Your task to perform on an android device: Go to CNN.com Image 0: 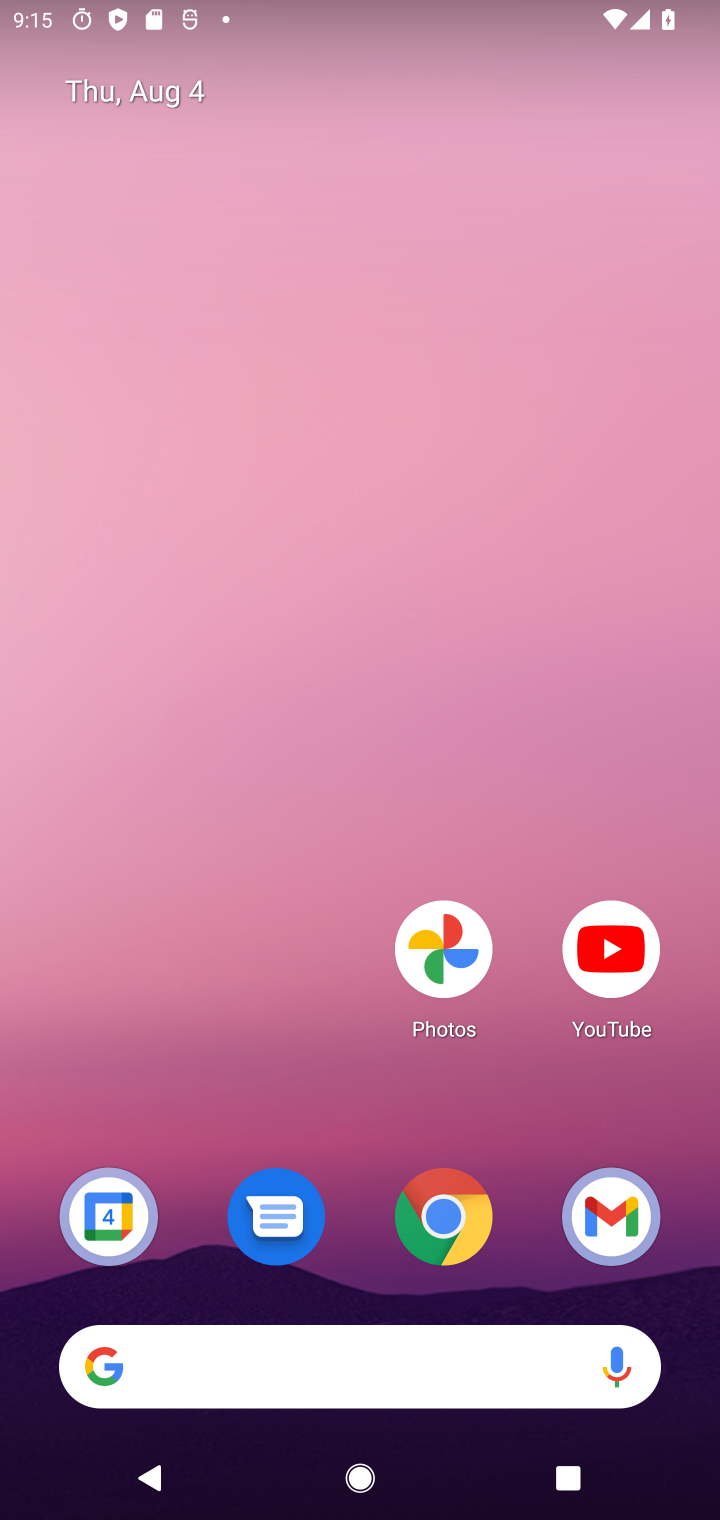
Step 0: drag from (349, 839) to (342, 280)
Your task to perform on an android device: Go to CNN.com Image 1: 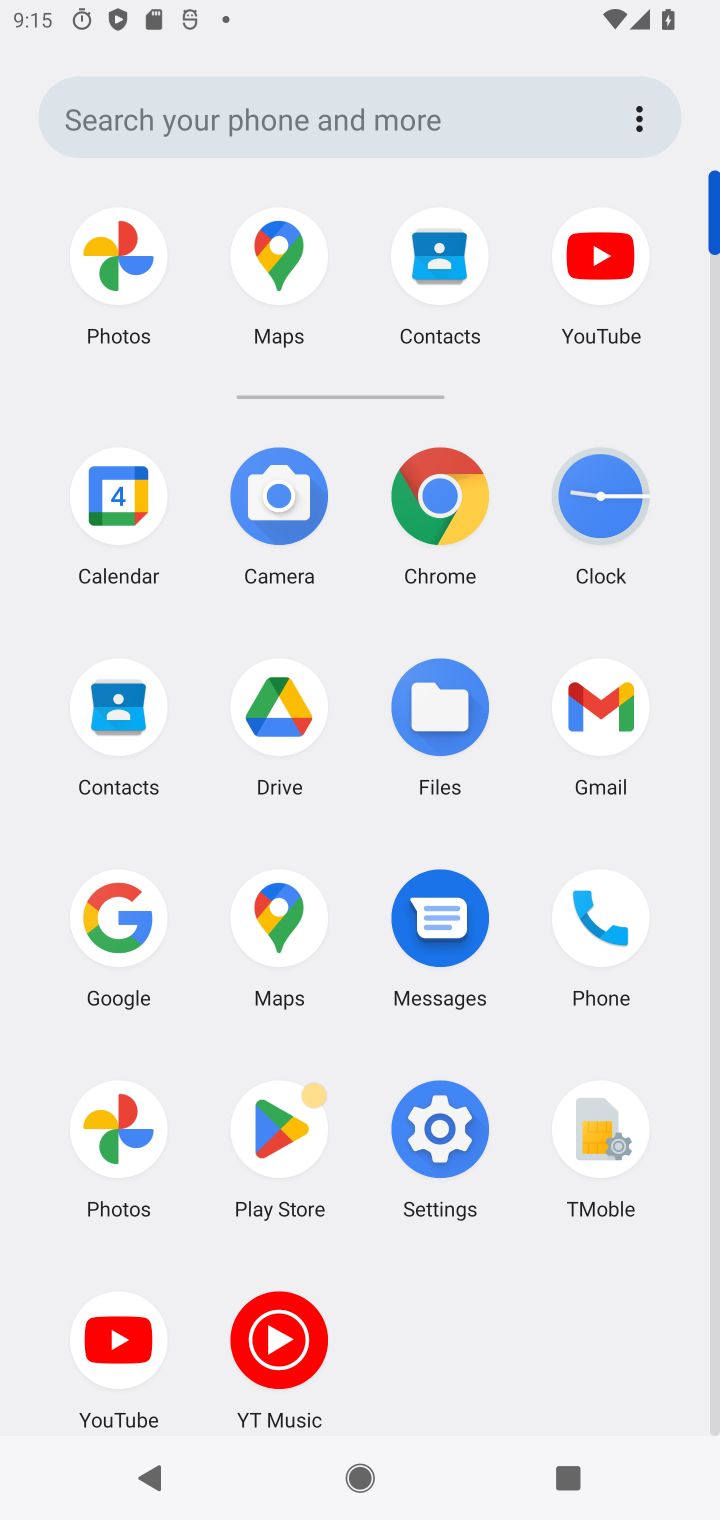
Step 1: click (432, 491)
Your task to perform on an android device: Go to CNN.com Image 2: 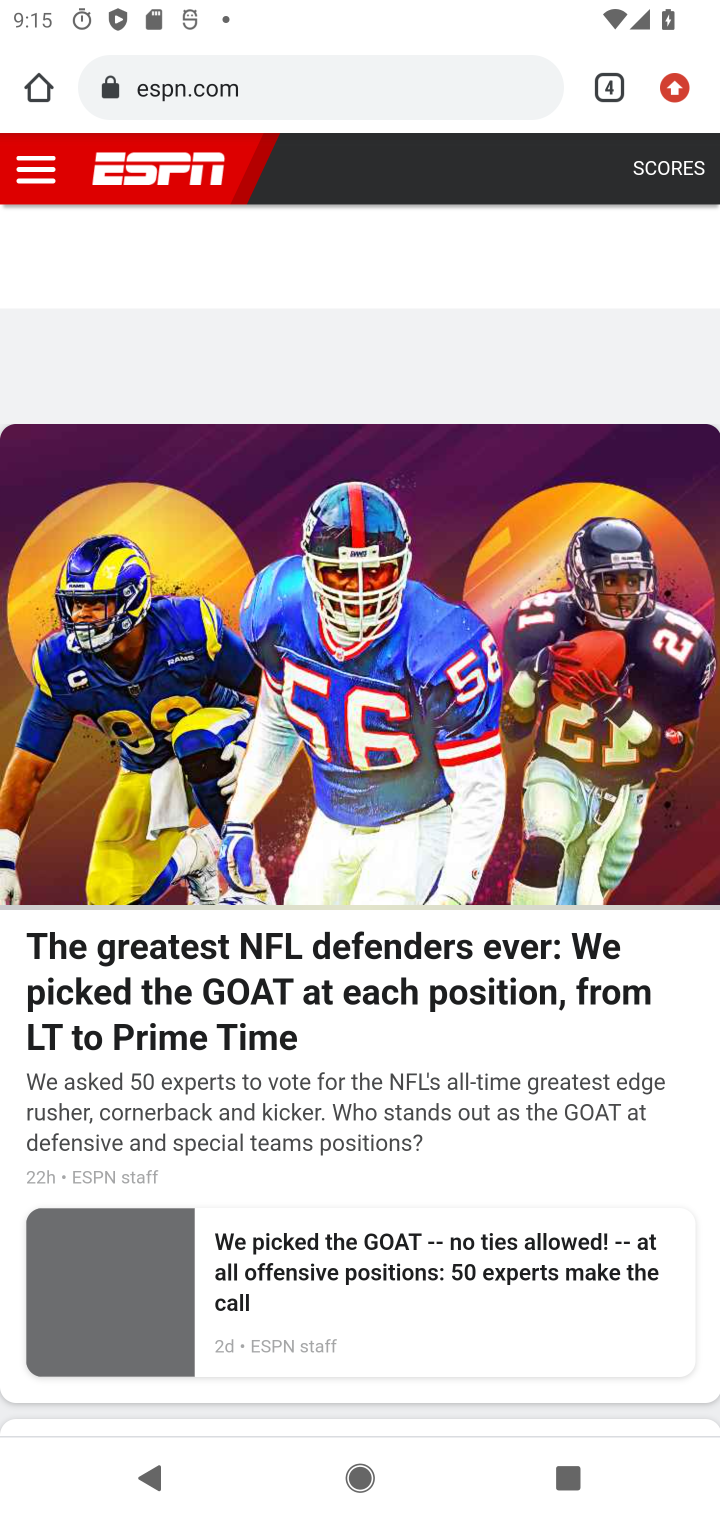
Step 2: click (673, 92)
Your task to perform on an android device: Go to CNN.com Image 3: 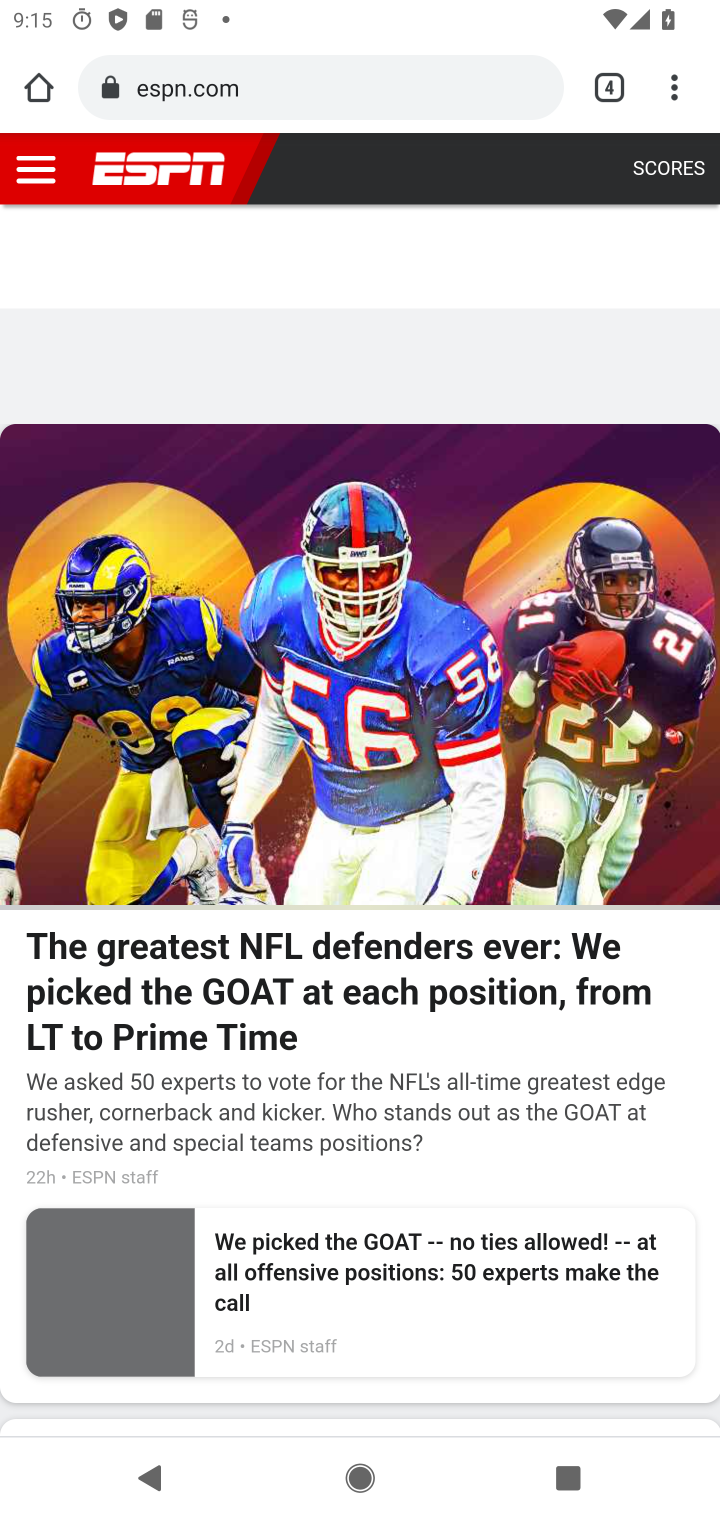
Step 3: drag from (671, 90) to (497, 257)
Your task to perform on an android device: Go to CNN.com Image 4: 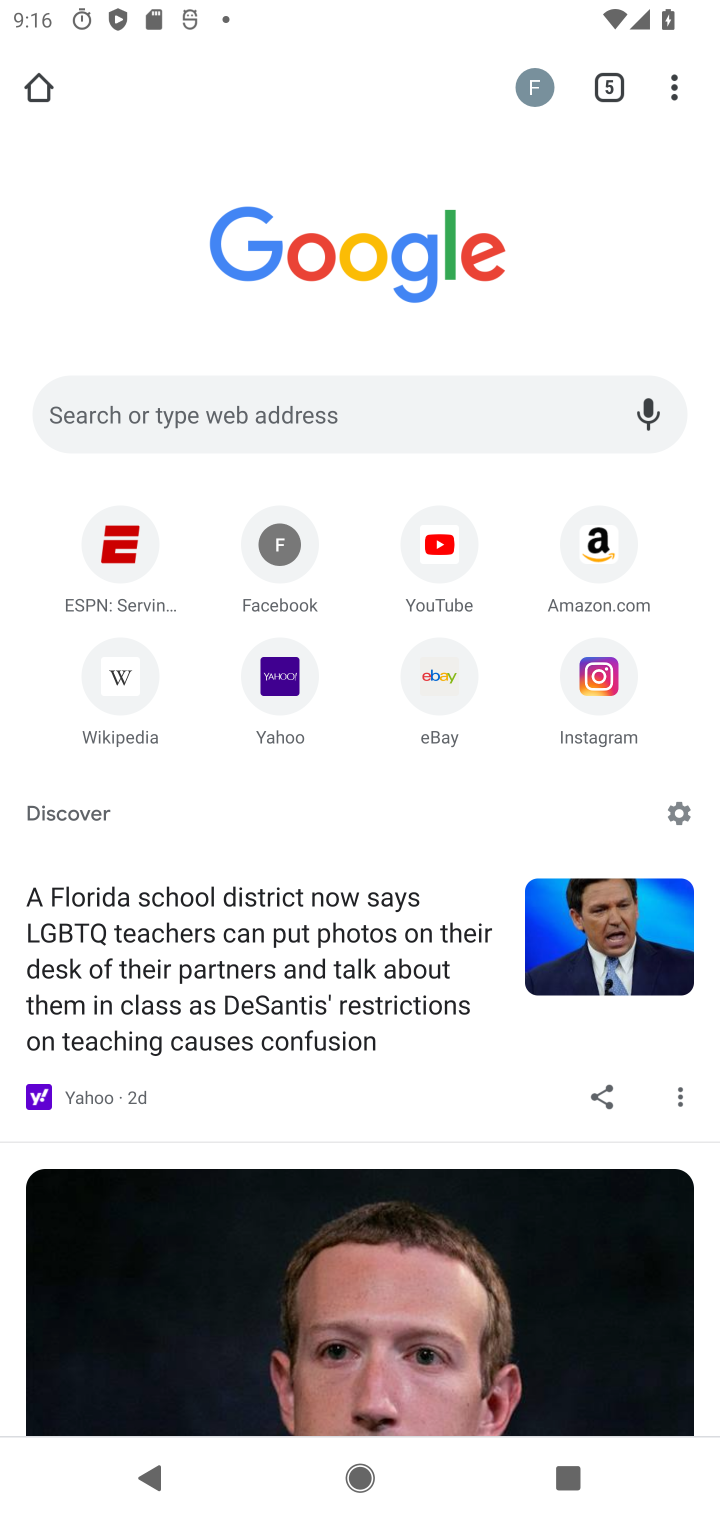
Step 4: click (448, 432)
Your task to perform on an android device: Go to CNN.com Image 5: 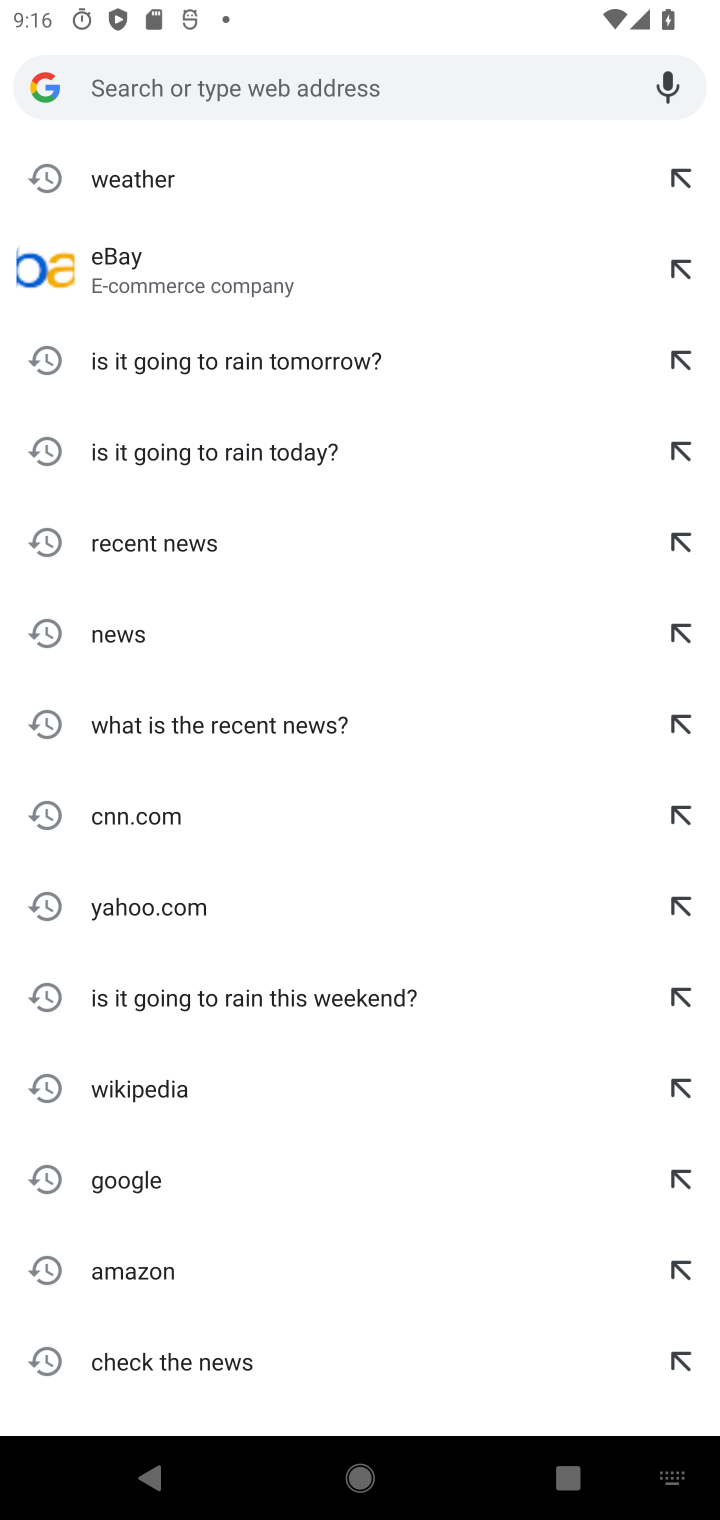
Step 5: type "CNN.com"
Your task to perform on an android device: Go to CNN.com Image 6: 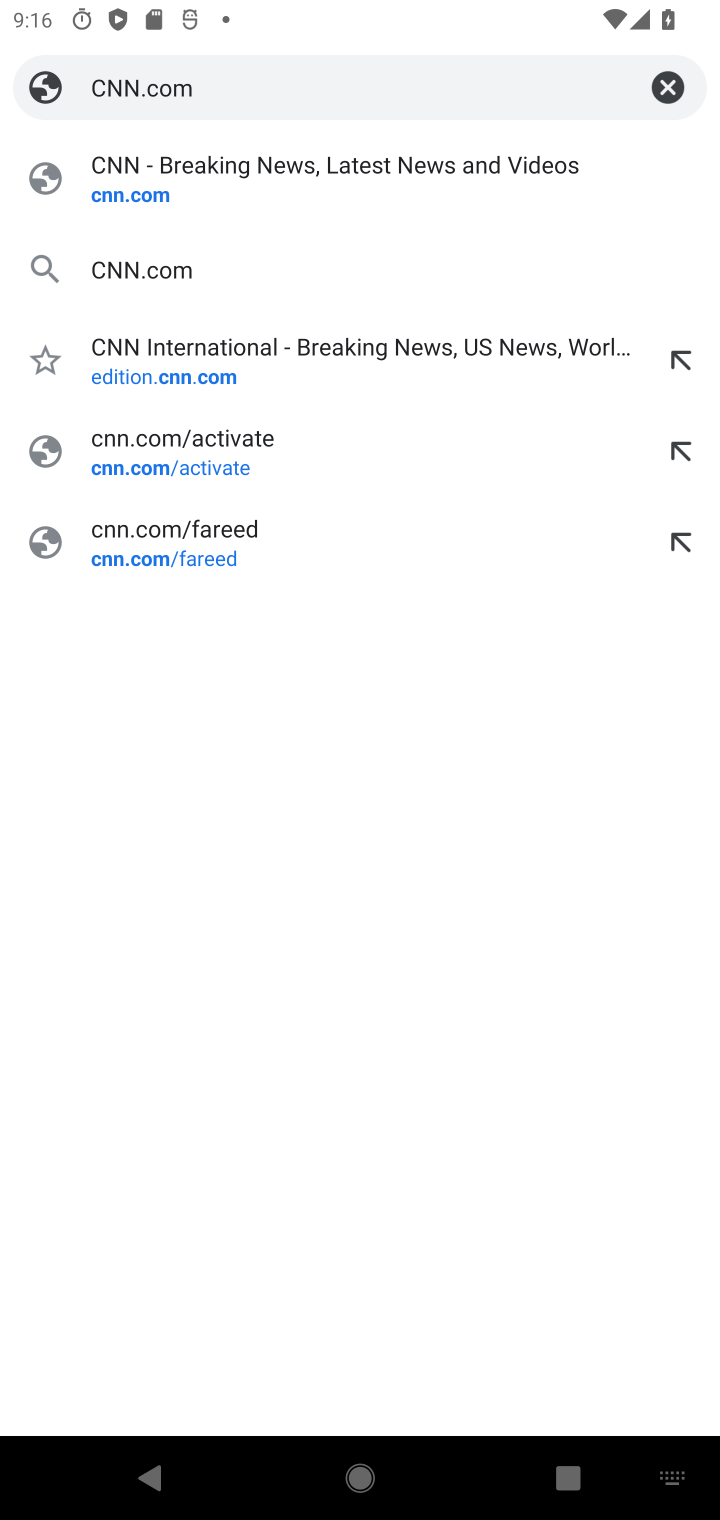
Step 6: click (109, 181)
Your task to perform on an android device: Go to CNN.com Image 7: 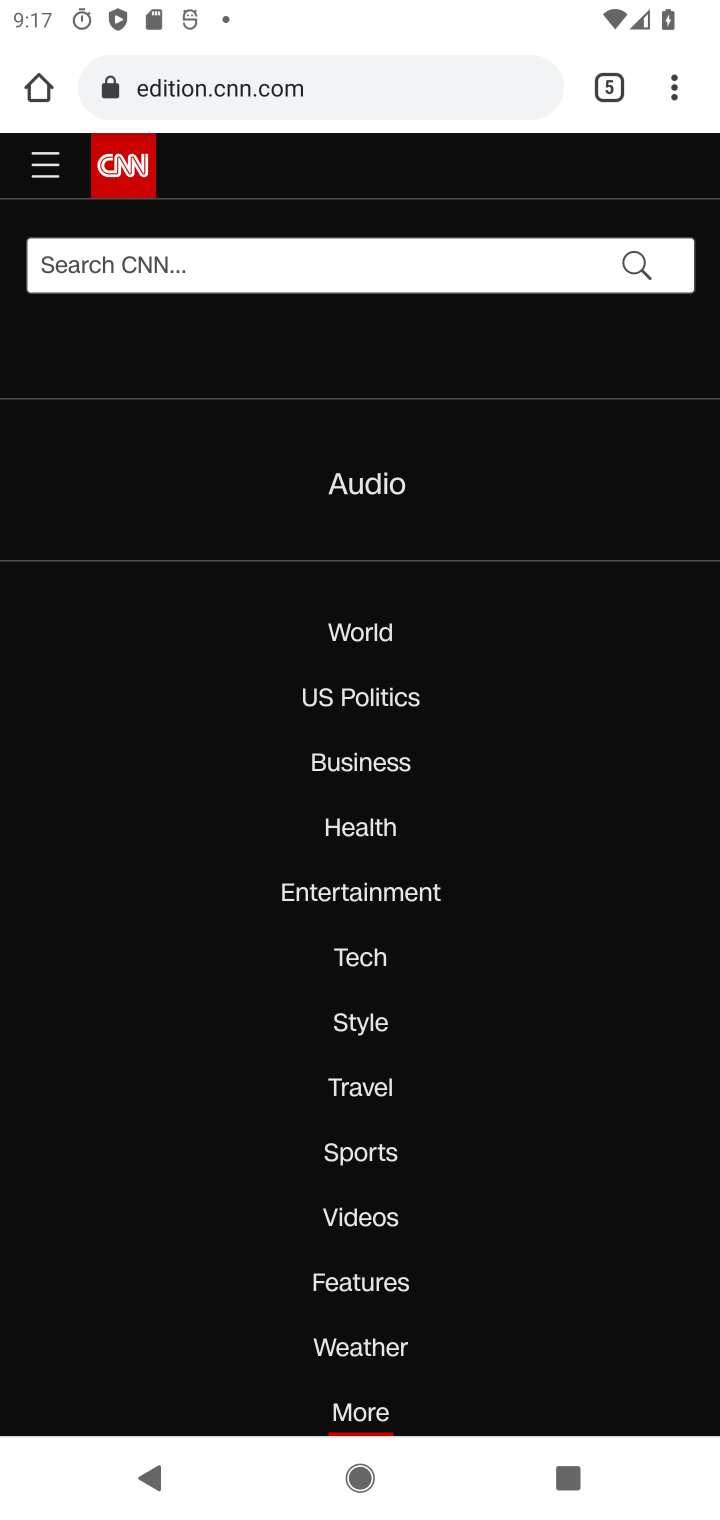
Step 7: task complete